Your task to perform on an android device: check out phone information Image 0: 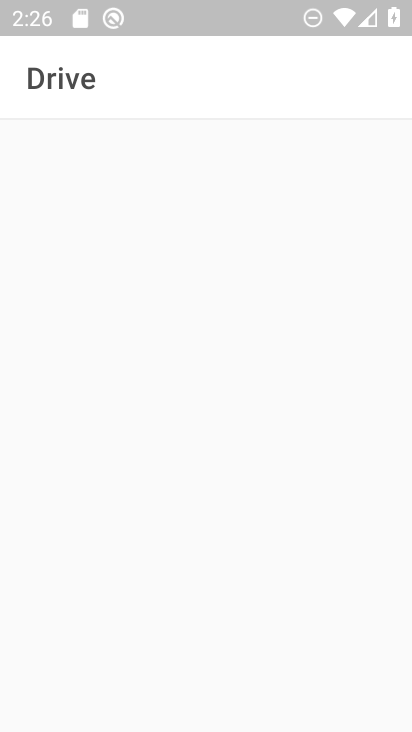
Step 0: press home button
Your task to perform on an android device: check out phone information Image 1: 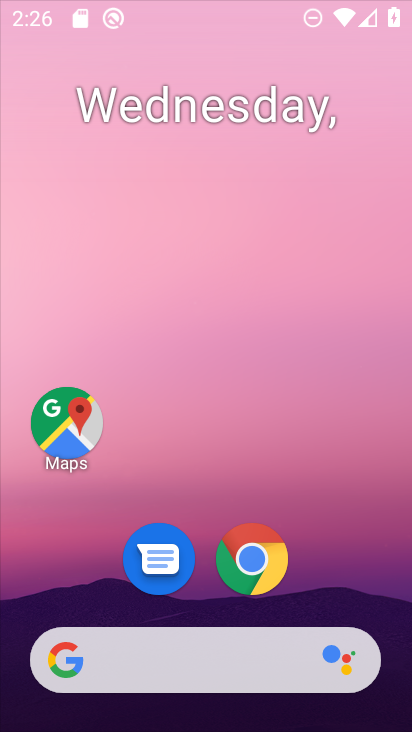
Step 1: drag from (351, 588) to (322, 71)
Your task to perform on an android device: check out phone information Image 2: 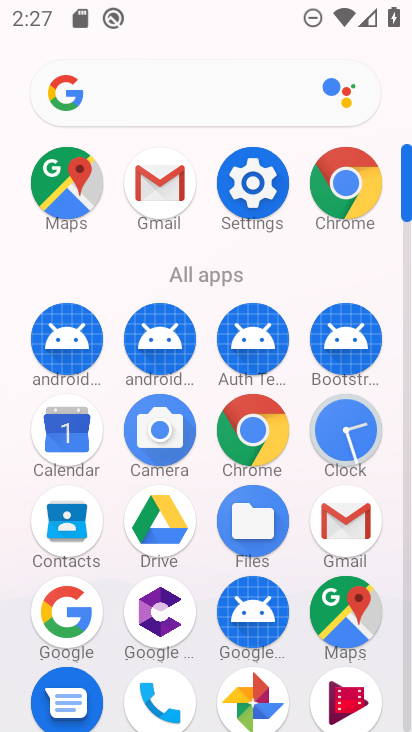
Step 2: click (167, 699)
Your task to perform on an android device: check out phone information Image 3: 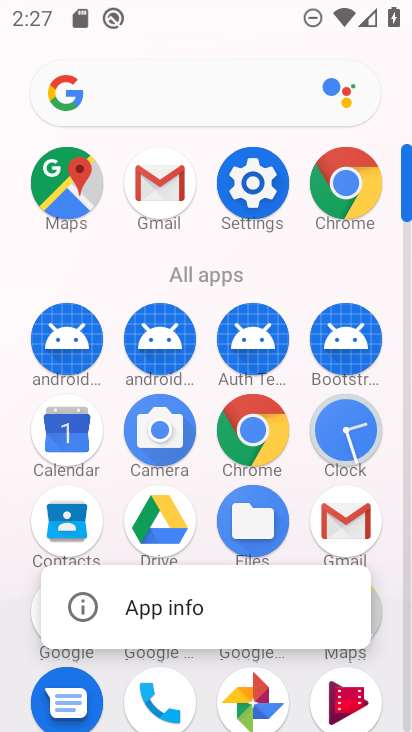
Step 3: click (164, 623)
Your task to perform on an android device: check out phone information Image 4: 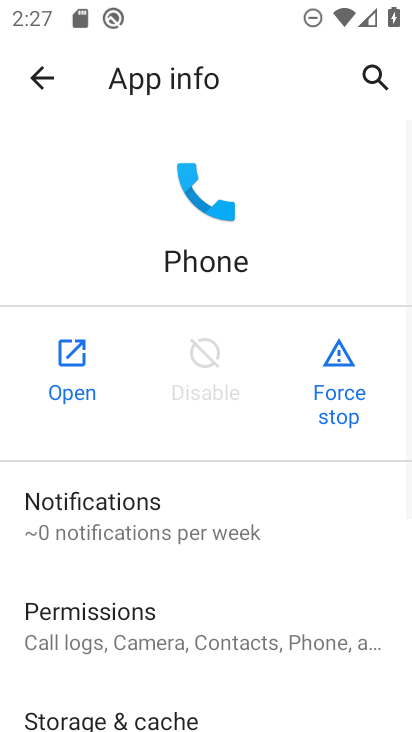
Step 4: task complete